Your task to perform on an android device: Open battery settings Image 0: 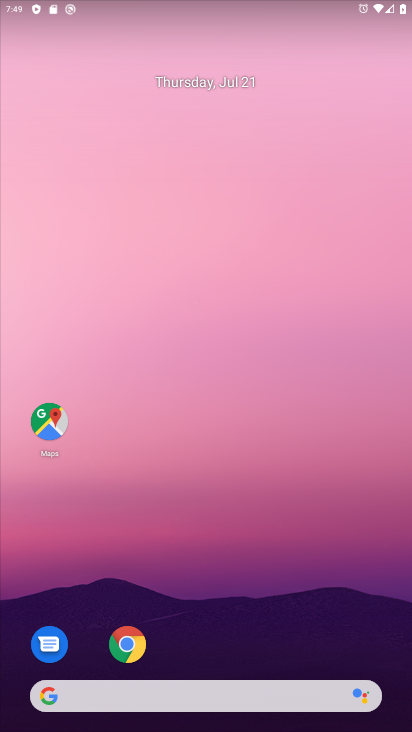
Step 0: drag from (283, 596) to (323, 216)
Your task to perform on an android device: Open battery settings Image 1: 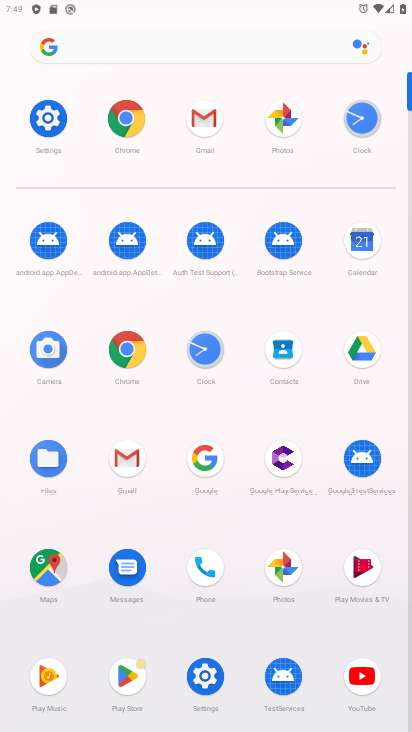
Step 1: click (53, 122)
Your task to perform on an android device: Open battery settings Image 2: 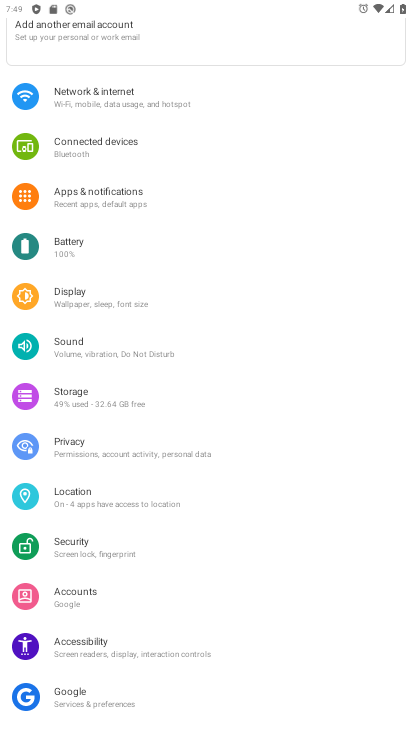
Step 2: drag from (349, 217) to (351, 297)
Your task to perform on an android device: Open battery settings Image 3: 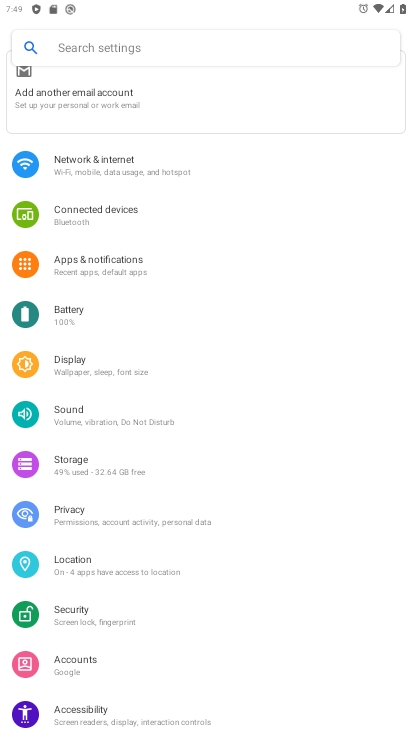
Step 3: drag from (350, 171) to (353, 297)
Your task to perform on an android device: Open battery settings Image 4: 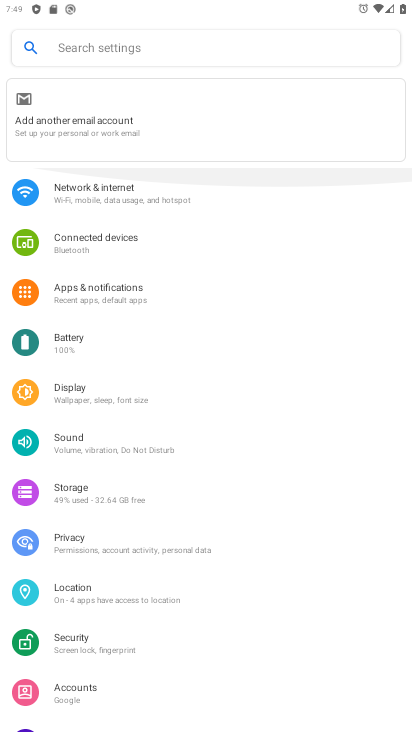
Step 4: drag from (359, 351) to (358, 259)
Your task to perform on an android device: Open battery settings Image 5: 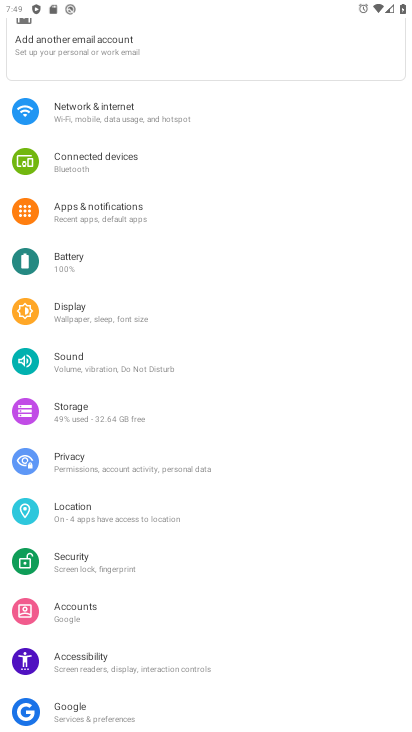
Step 5: drag from (364, 350) to (360, 261)
Your task to perform on an android device: Open battery settings Image 6: 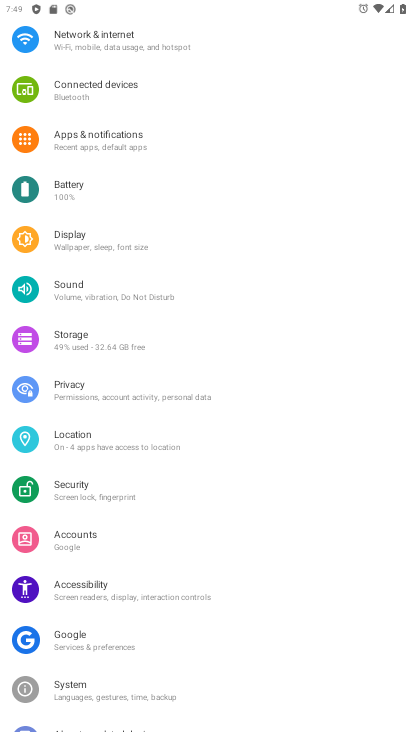
Step 6: drag from (347, 326) to (334, 234)
Your task to perform on an android device: Open battery settings Image 7: 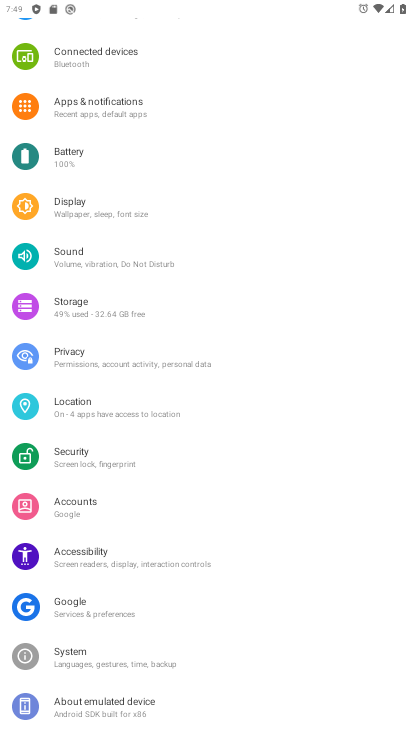
Step 7: click (236, 163)
Your task to perform on an android device: Open battery settings Image 8: 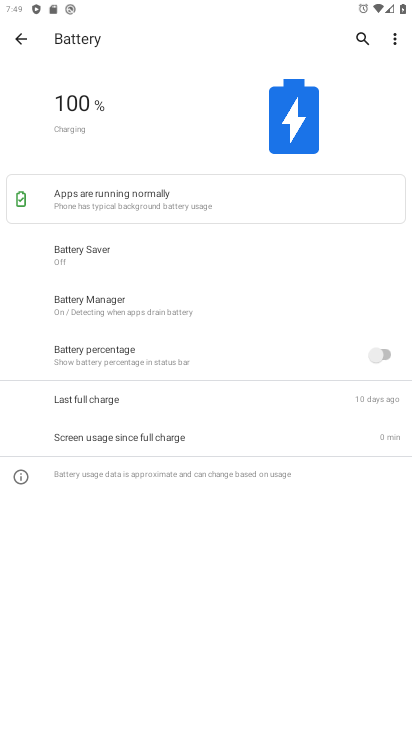
Step 8: task complete